Your task to perform on an android device: toggle notifications settings in the gmail app Image 0: 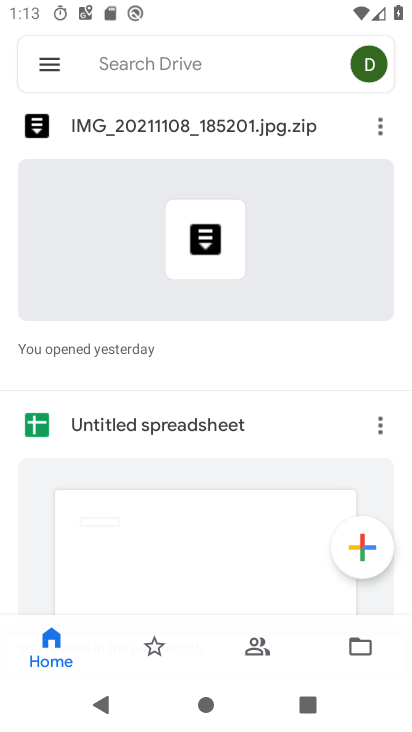
Step 0: press home button
Your task to perform on an android device: toggle notifications settings in the gmail app Image 1: 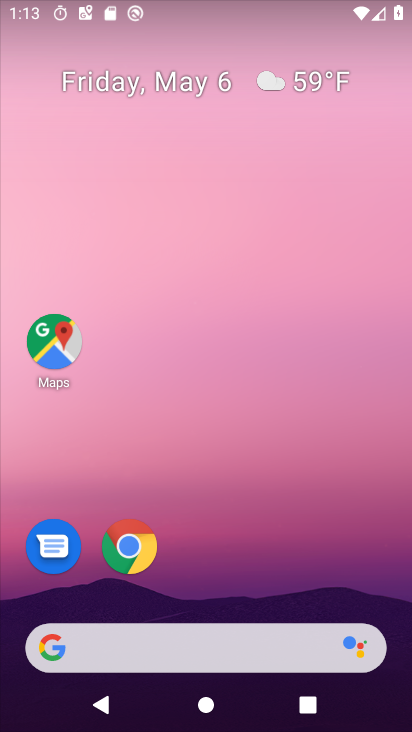
Step 1: drag from (265, 584) to (246, 150)
Your task to perform on an android device: toggle notifications settings in the gmail app Image 2: 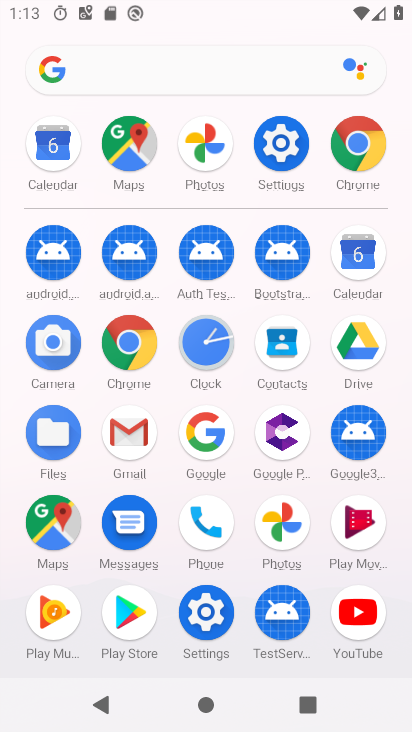
Step 2: click (127, 440)
Your task to perform on an android device: toggle notifications settings in the gmail app Image 3: 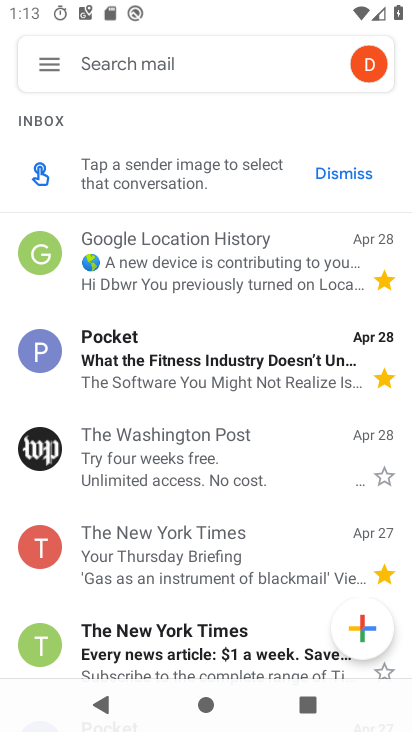
Step 3: click (41, 55)
Your task to perform on an android device: toggle notifications settings in the gmail app Image 4: 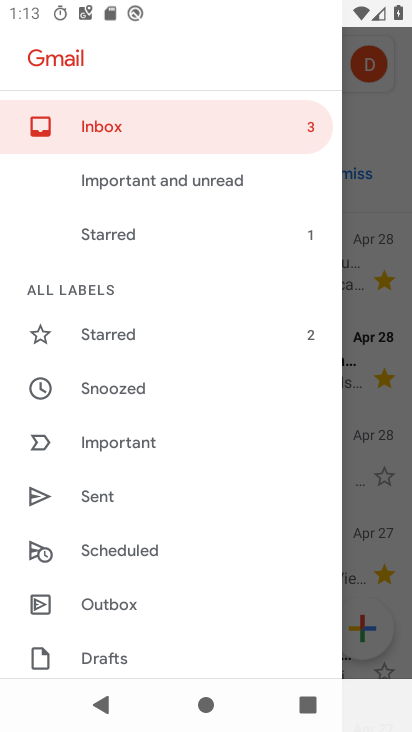
Step 4: drag from (214, 604) to (187, 268)
Your task to perform on an android device: toggle notifications settings in the gmail app Image 5: 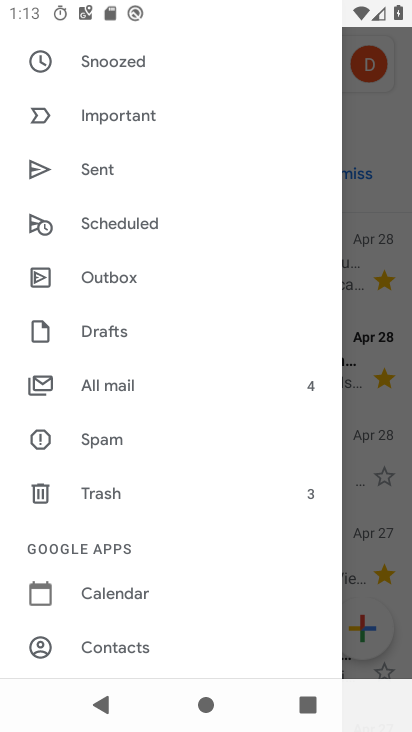
Step 5: drag from (178, 584) to (218, 281)
Your task to perform on an android device: toggle notifications settings in the gmail app Image 6: 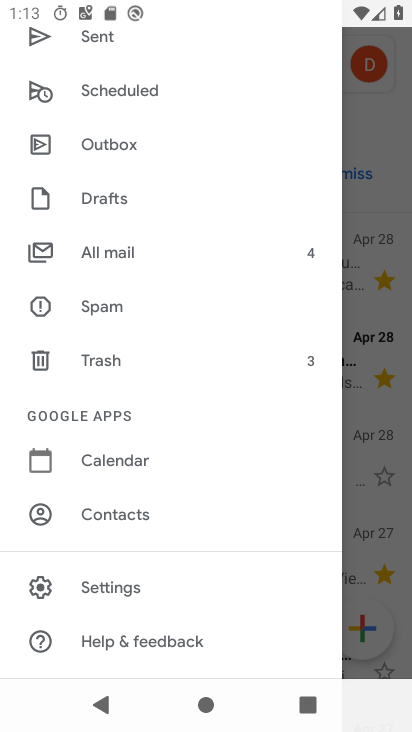
Step 6: click (136, 584)
Your task to perform on an android device: toggle notifications settings in the gmail app Image 7: 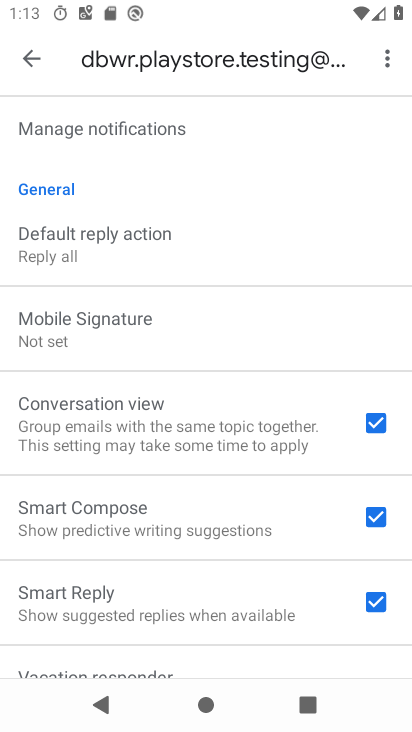
Step 7: click (133, 129)
Your task to perform on an android device: toggle notifications settings in the gmail app Image 8: 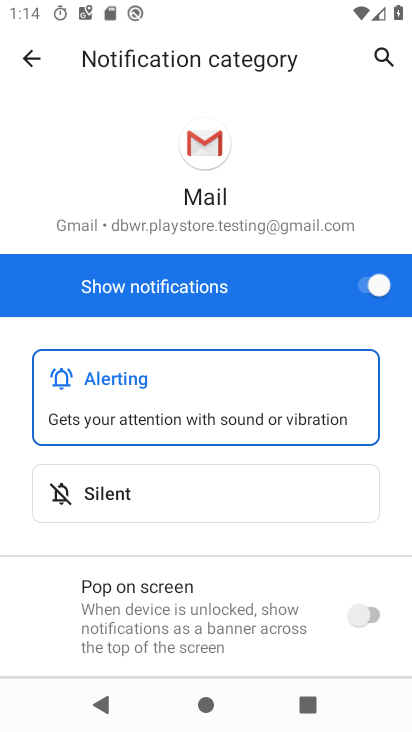
Step 8: click (362, 278)
Your task to perform on an android device: toggle notifications settings in the gmail app Image 9: 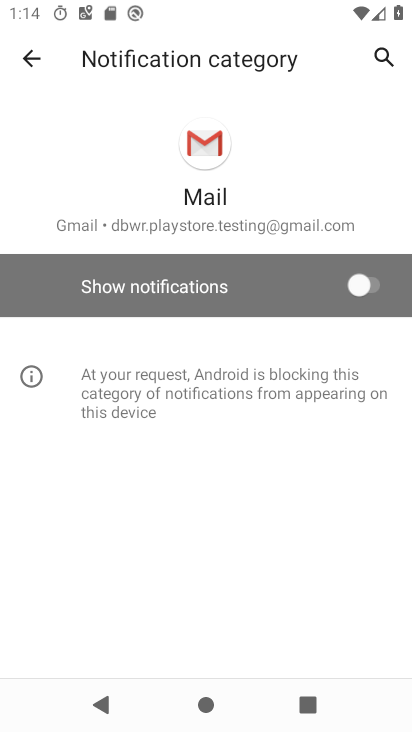
Step 9: task complete